Your task to perform on an android device: set an alarm Image 0: 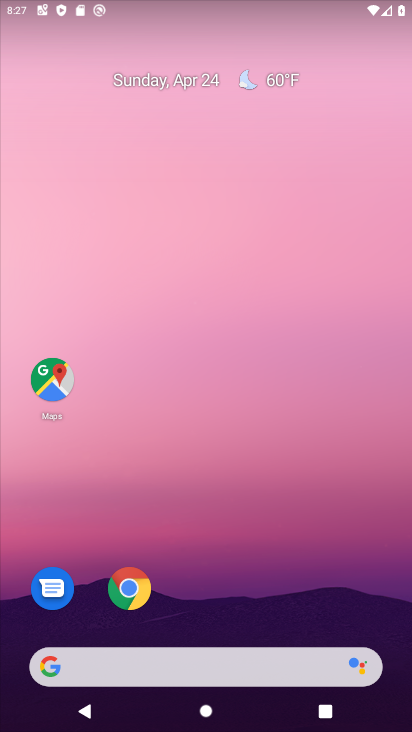
Step 0: drag from (198, 534) to (229, 53)
Your task to perform on an android device: set an alarm Image 1: 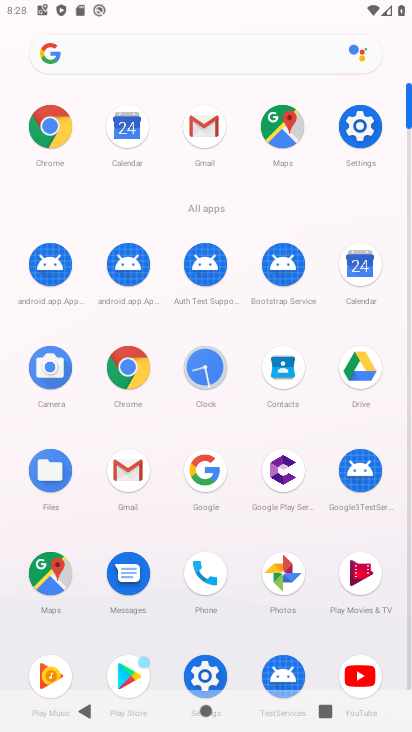
Step 1: click (205, 366)
Your task to perform on an android device: set an alarm Image 2: 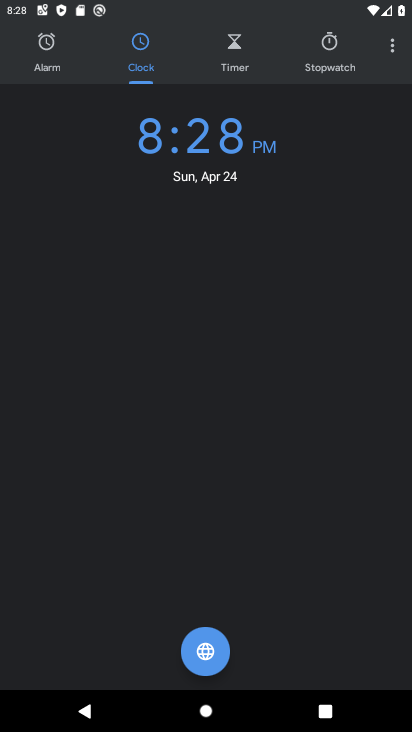
Step 2: click (45, 47)
Your task to perform on an android device: set an alarm Image 3: 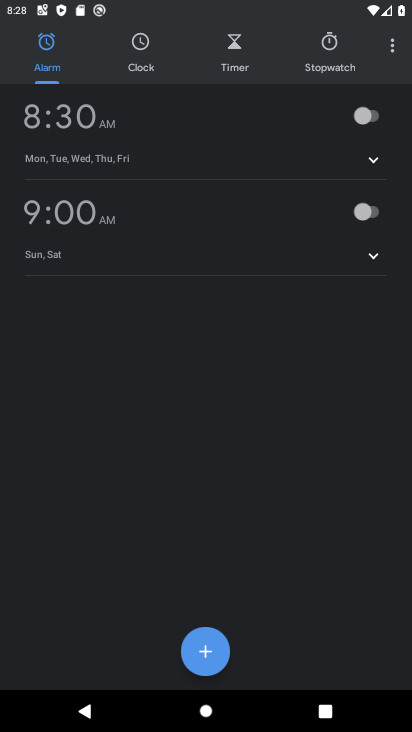
Step 3: click (204, 652)
Your task to perform on an android device: set an alarm Image 4: 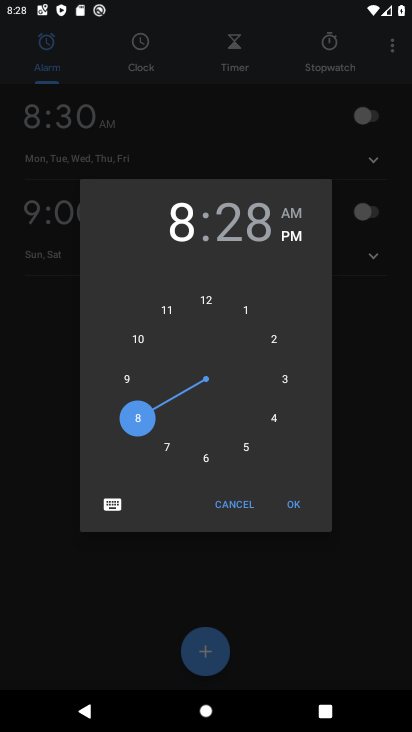
Step 4: click (206, 303)
Your task to perform on an android device: set an alarm Image 5: 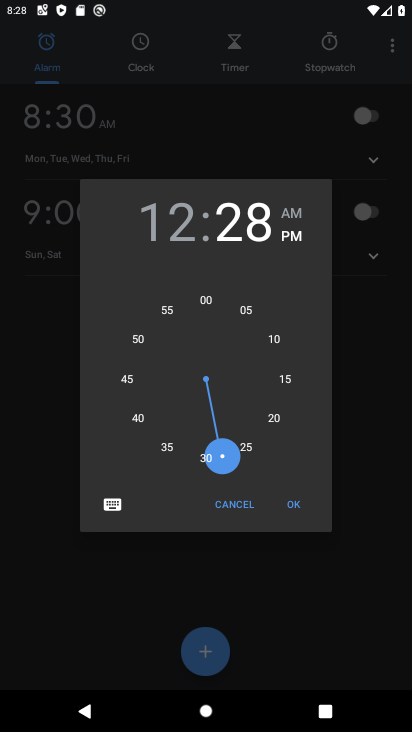
Step 5: click (162, 317)
Your task to perform on an android device: set an alarm Image 6: 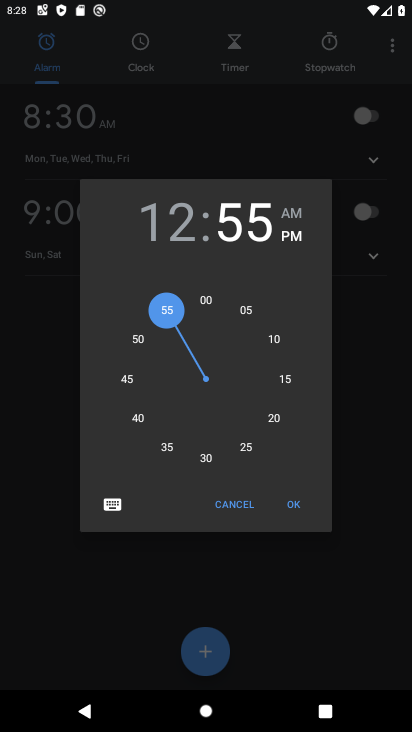
Step 6: click (295, 212)
Your task to perform on an android device: set an alarm Image 7: 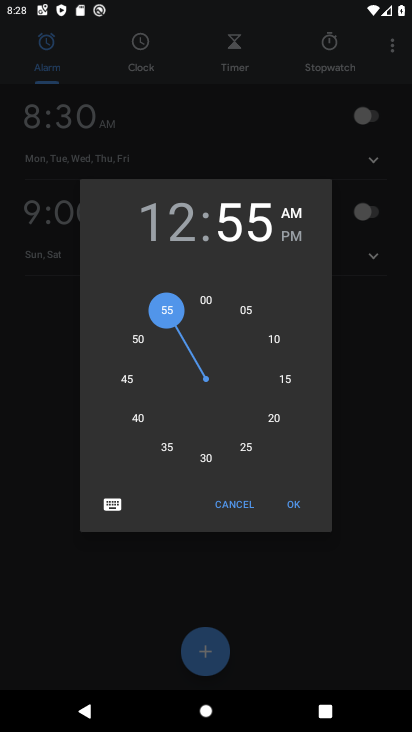
Step 7: click (293, 506)
Your task to perform on an android device: set an alarm Image 8: 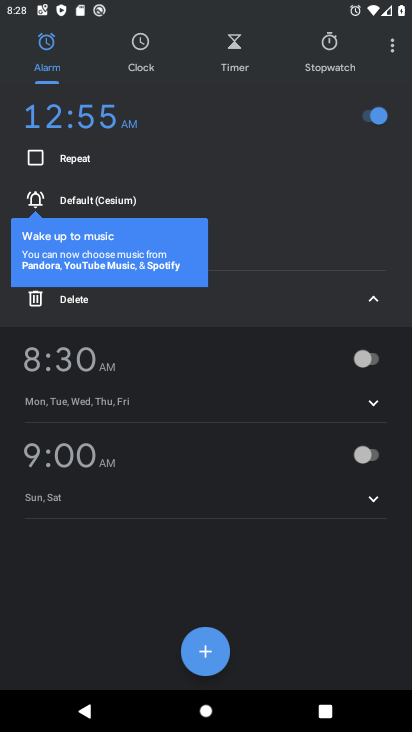
Step 8: click (378, 299)
Your task to perform on an android device: set an alarm Image 9: 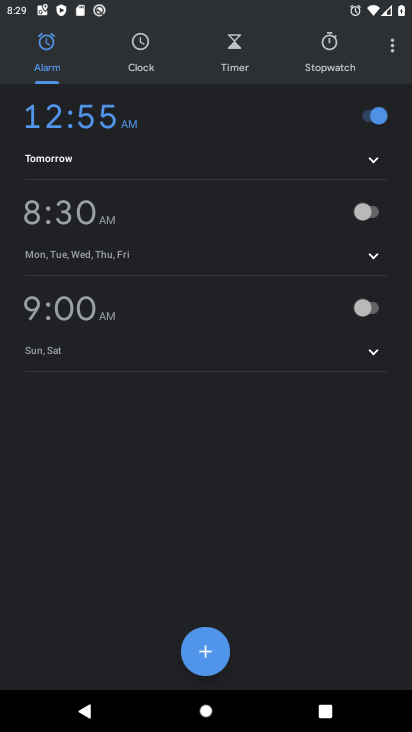
Step 9: task complete